Your task to perform on an android device: visit the assistant section in the google photos Image 0: 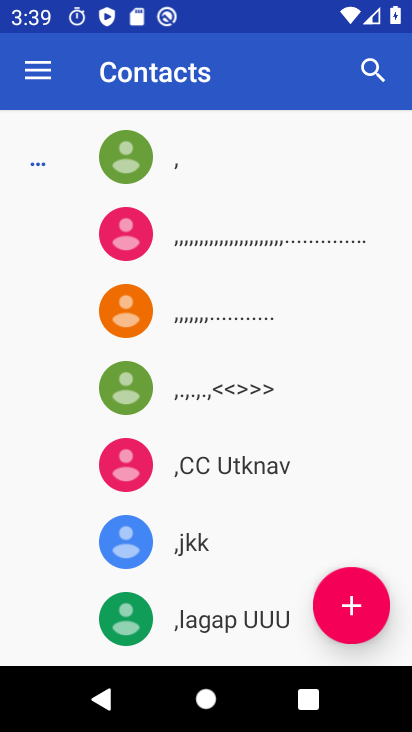
Step 0: press back button
Your task to perform on an android device: visit the assistant section in the google photos Image 1: 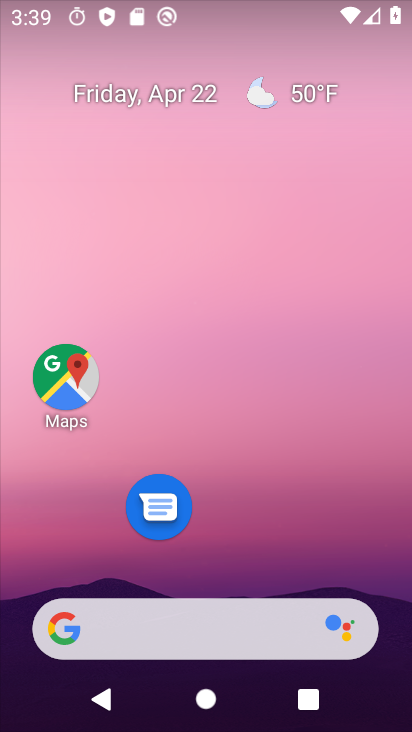
Step 1: drag from (197, 583) to (254, 65)
Your task to perform on an android device: visit the assistant section in the google photos Image 2: 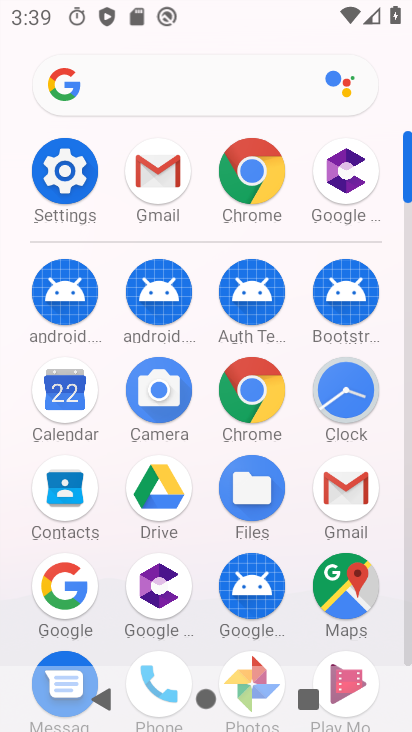
Step 2: click (256, 664)
Your task to perform on an android device: visit the assistant section in the google photos Image 3: 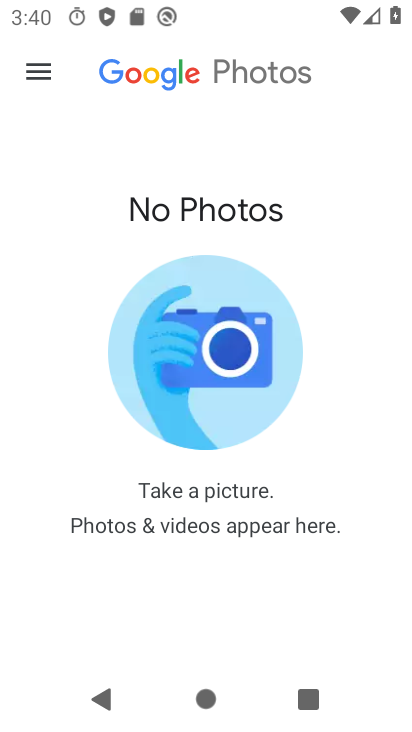
Step 3: click (39, 71)
Your task to perform on an android device: visit the assistant section in the google photos Image 4: 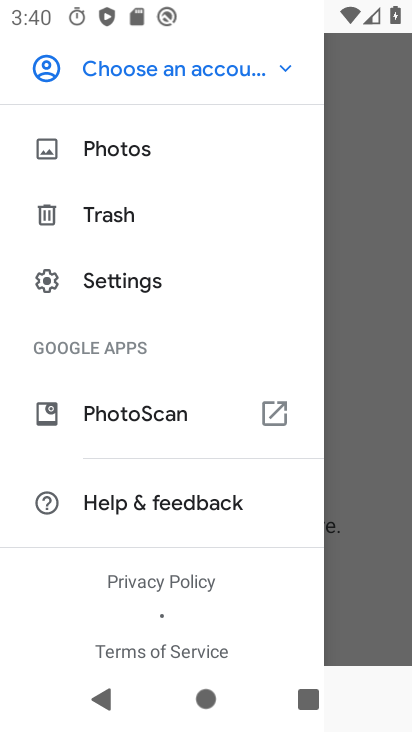
Step 4: click (148, 136)
Your task to perform on an android device: visit the assistant section in the google photos Image 5: 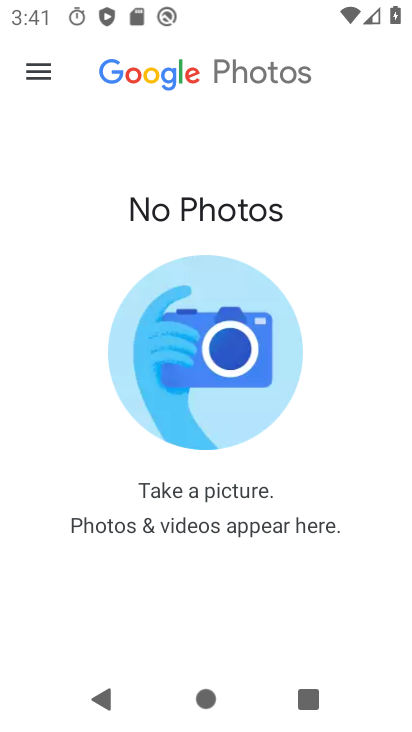
Step 5: task complete